Your task to perform on an android device: Empty the shopping cart on newegg. Add razer deathadder to the cart on newegg, then select checkout. Image 0: 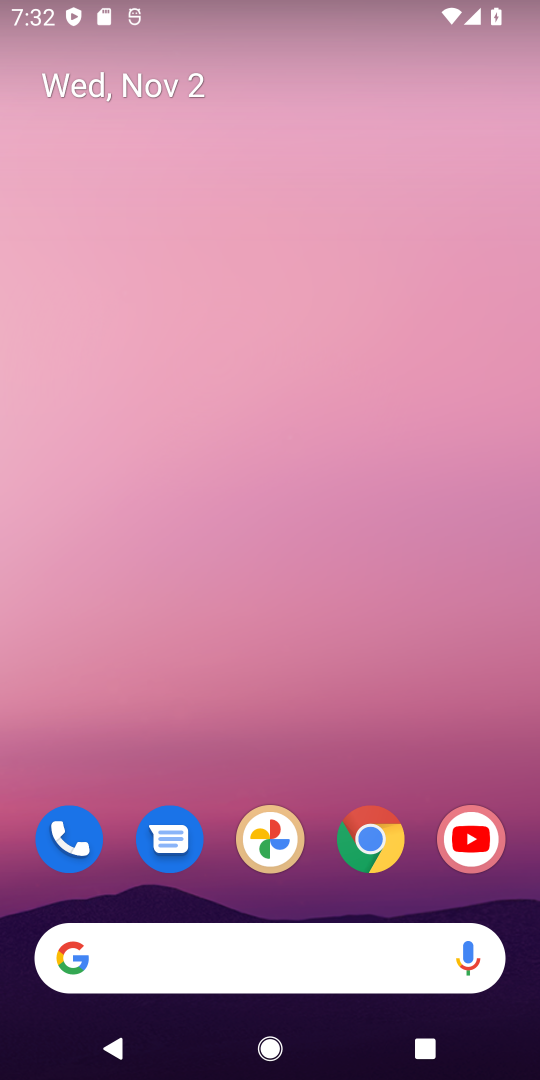
Step 0: press home button
Your task to perform on an android device: Empty the shopping cart on newegg. Add razer deathadder to the cart on newegg, then select checkout. Image 1: 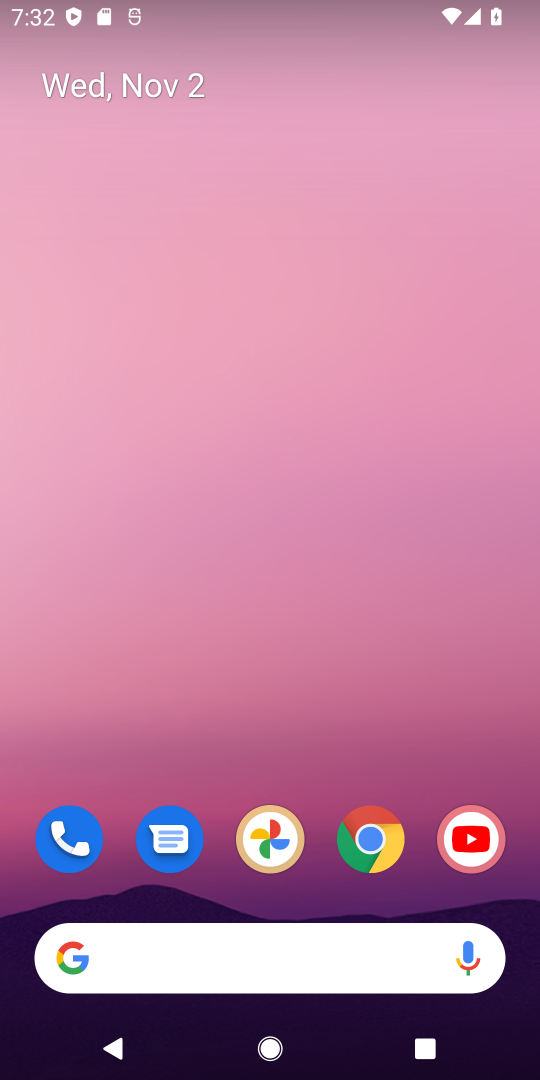
Step 1: click (370, 840)
Your task to perform on an android device: Empty the shopping cart on newegg. Add razer deathadder to the cart on newegg, then select checkout. Image 2: 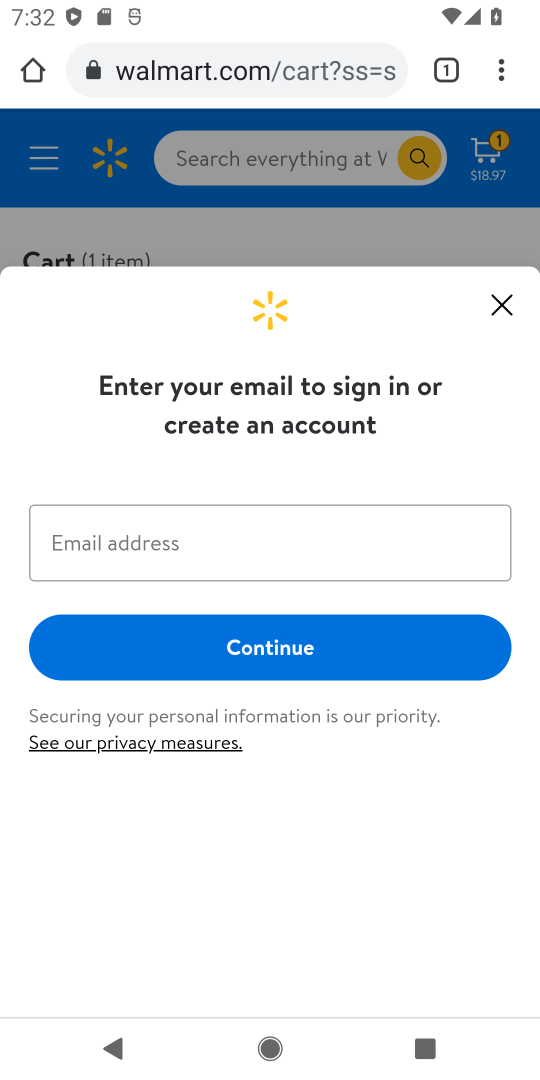
Step 2: click (296, 67)
Your task to perform on an android device: Empty the shopping cart on newegg. Add razer deathadder to the cart on newegg, then select checkout. Image 3: 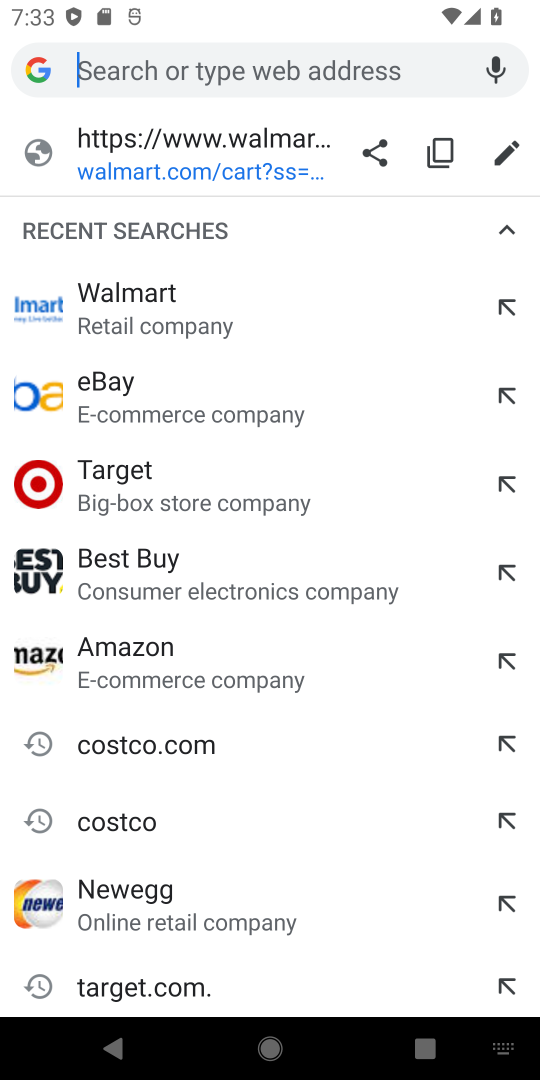
Step 3: type "newegg"
Your task to perform on an android device: Empty the shopping cart on newegg. Add razer deathadder to the cart on newegg, then select checkout. Image 4: 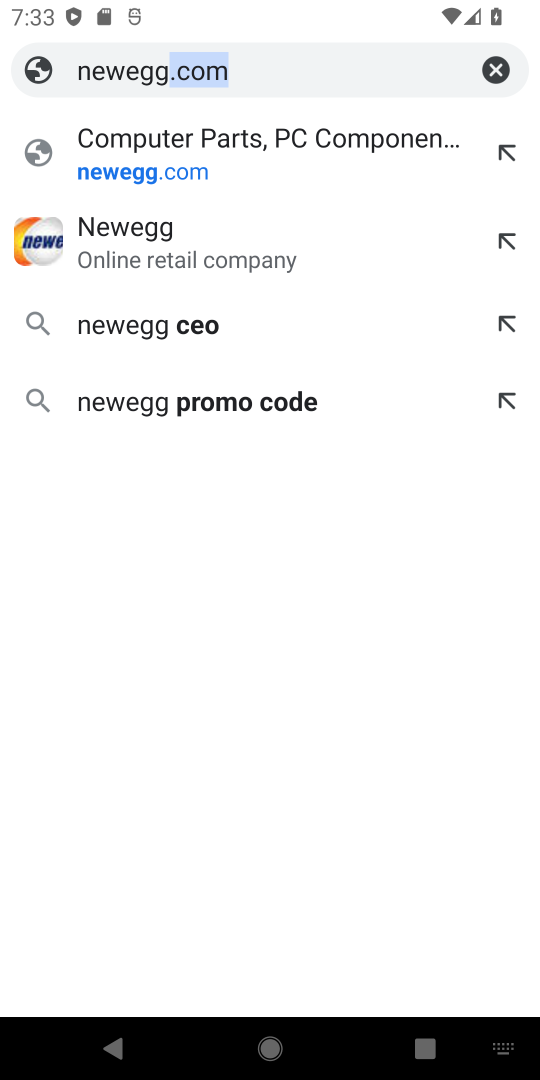
Step 4: click (235, 237)
Your task to perform on an android device: Empty the shopping cart on newegg. Add razer deathadder to the cart on newegg, then select checkout. Image 5: 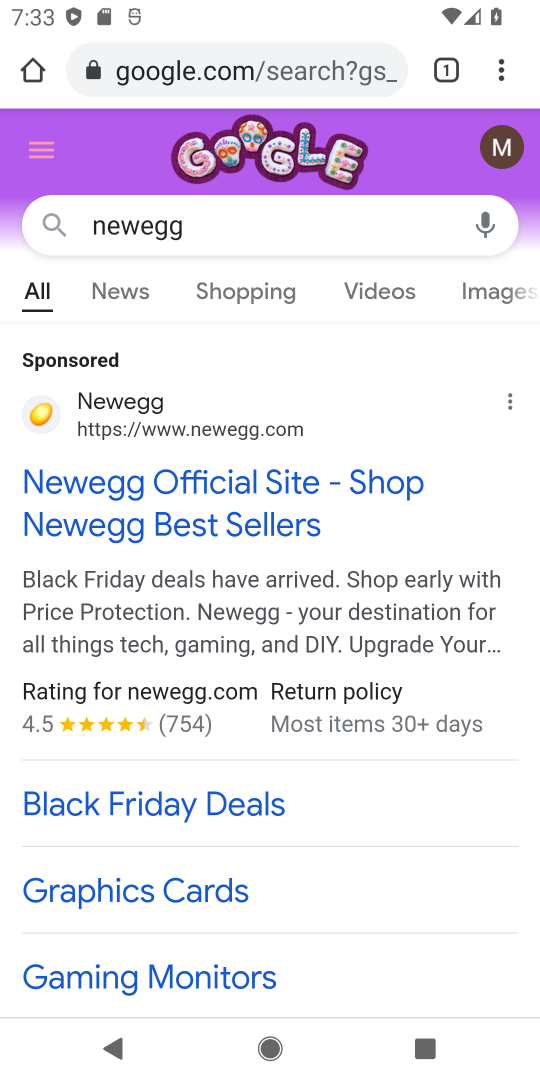
Step 5: drag from (363, 867) to (352, 360)
Your task to perform on an android device: Empty the shopping cart on newegg. Add razer deathadder to the cart on newegg, then select checkout. Image 6: 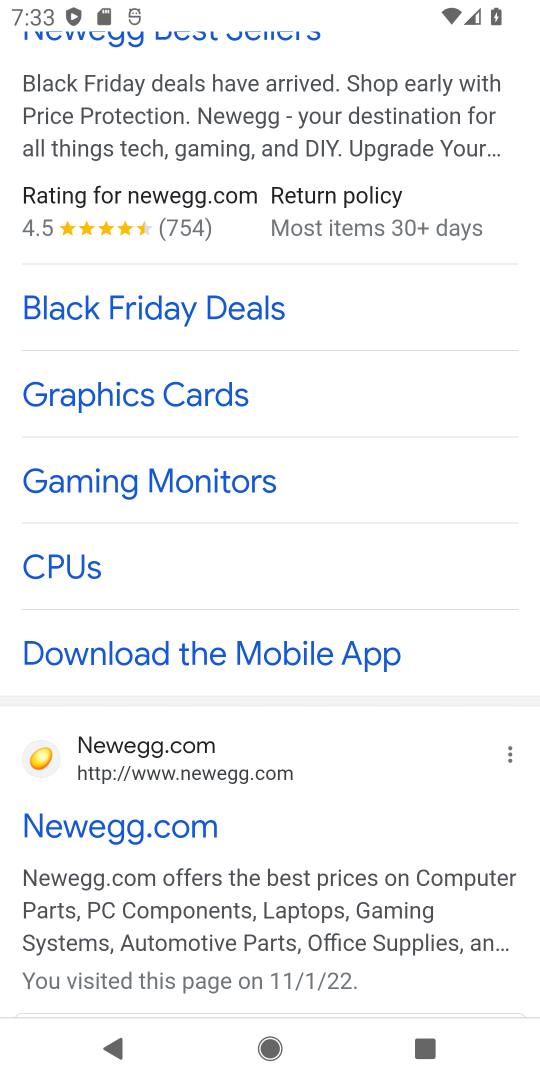
Step 6: click (270, 814)
Your task to perform on an android device: Empty the shopping cart on newegg. Add razer deathadder to the cart on newegg, then select checkout. Image 7: 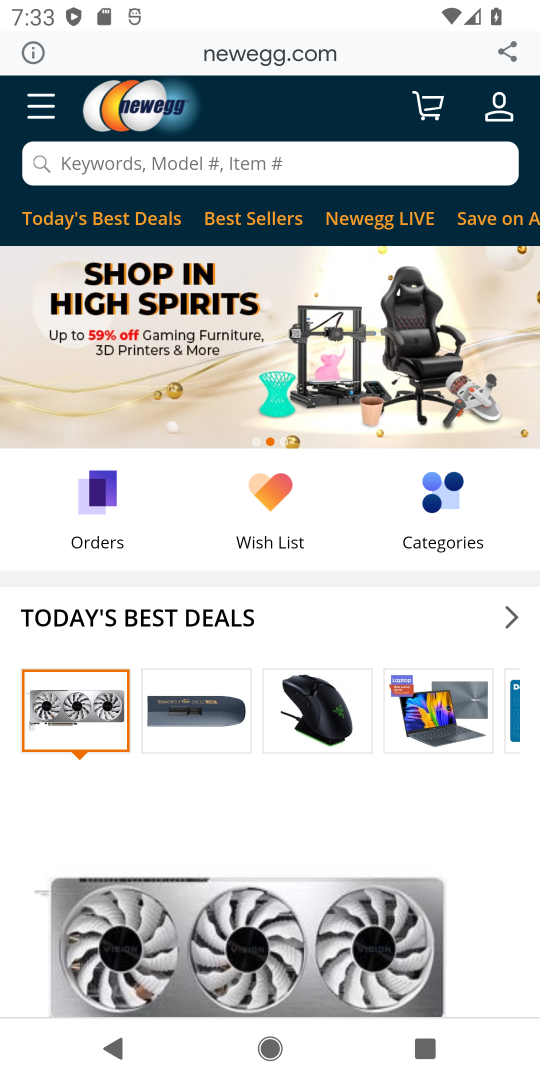
Step 7: click (277, 160)
Your task to perform on an android device: Empty the shopping cart on newegg. Add razer deathadder to the cart on newegg, then select checkout. Image 8: 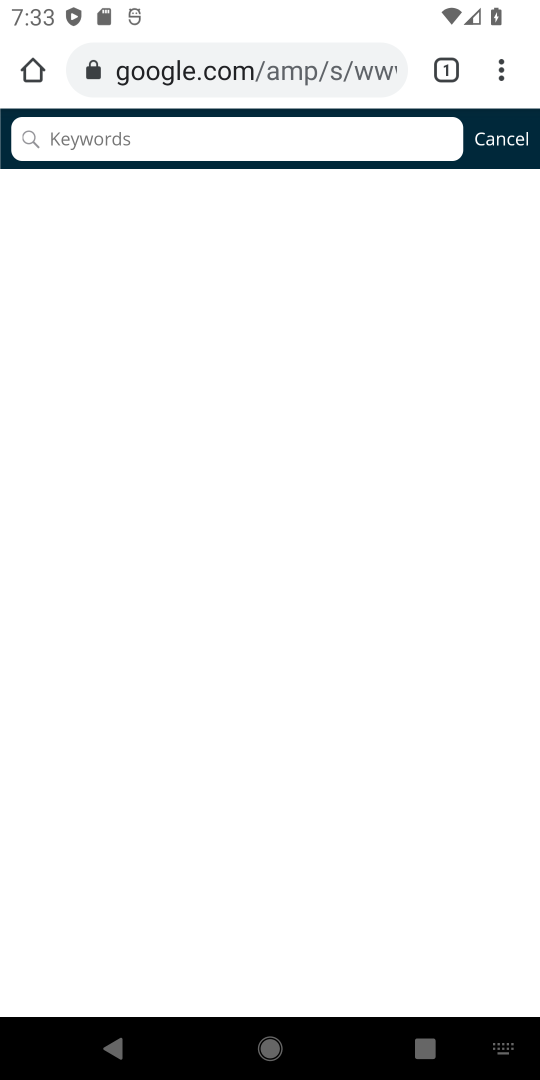
Step 8: type "razer deathadder"
Your task to perform on an android device: Empty the shopping cart on newegg. Add razer deathadder to the cart on newegg, then select checkout. Image 9: 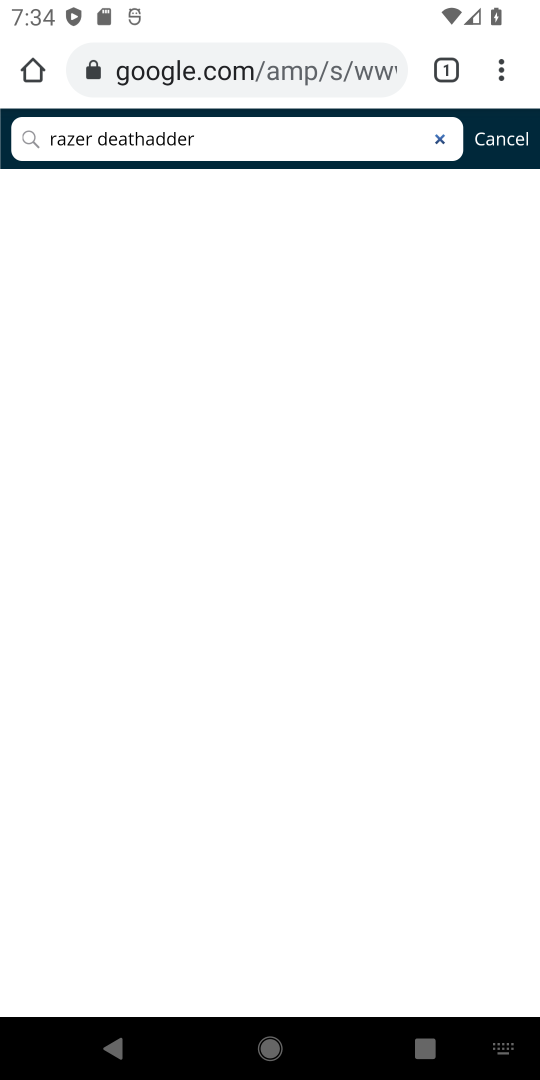
Step 9: task complete